Your task to perform on an android device: Go to Amazon Image 0: 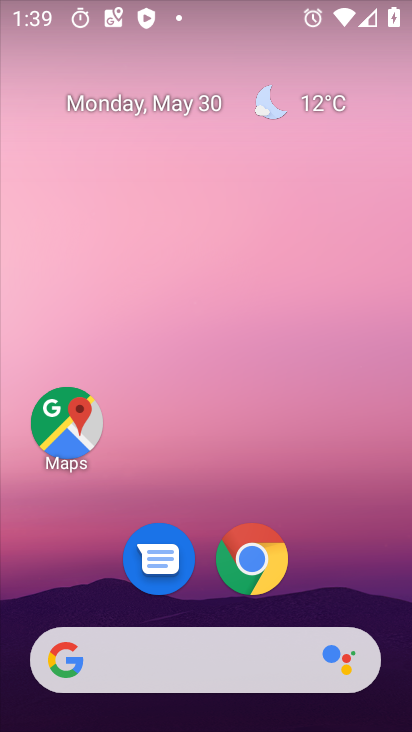
Step 0: click (261, 548)
Your task to perform on an android device: Go to Amazon Image 1: 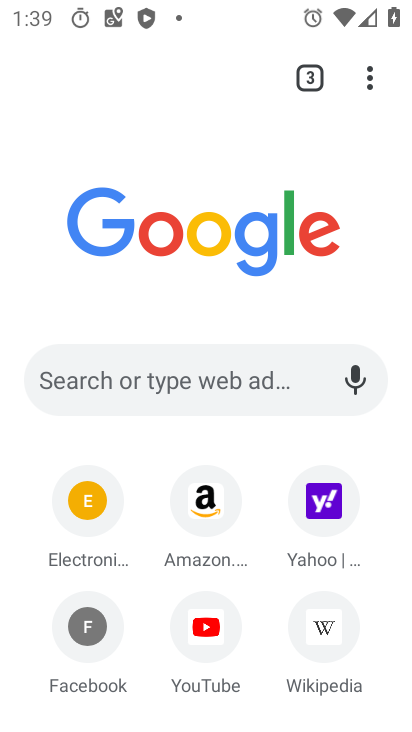
Step 1: click (212, 512)
Your task to perform on an android device: Go to Amazon Image 2: 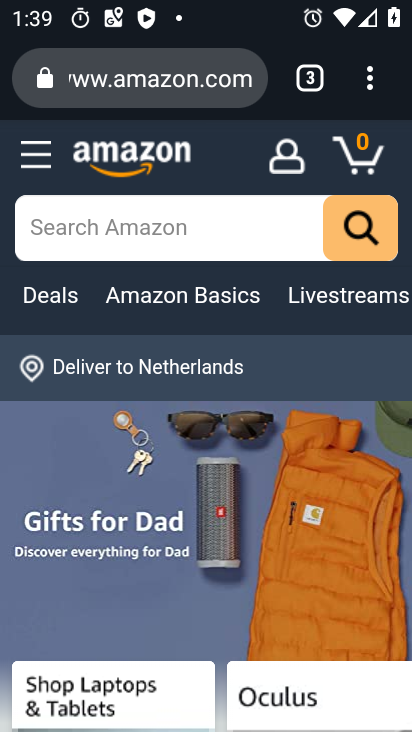
Step 2: task complete